Your task to perform on an android device: Go to network settings Image 0: 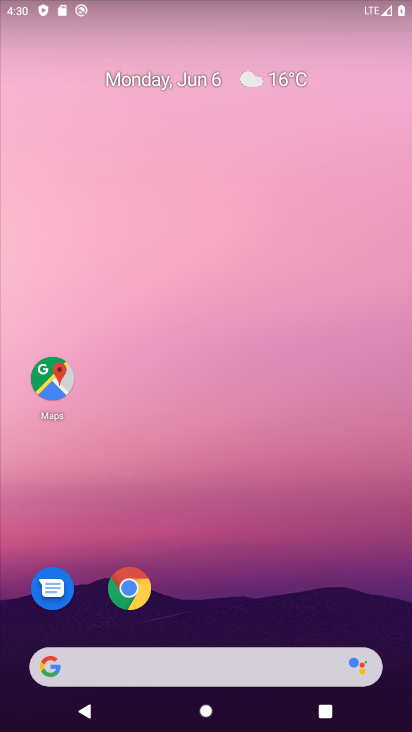
Step 0: click (248, 53)
Your task to perform on an android device: Go to network settings Image 1: 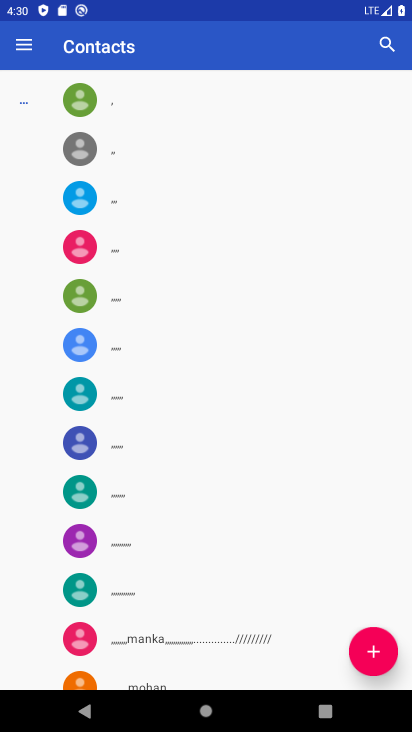
Step 1: press back button
Your task to perform on an android device: Go to network settings Image 2: 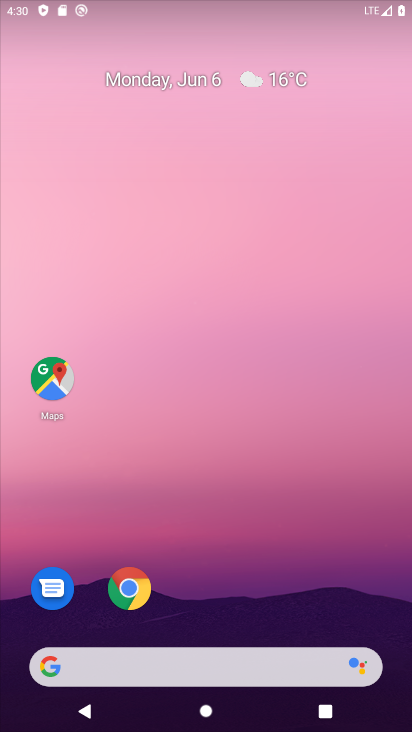
Step 2: drag from (280, 717) to (139, 83)
Your task to perform on an android device: Go to network settings Image 3: 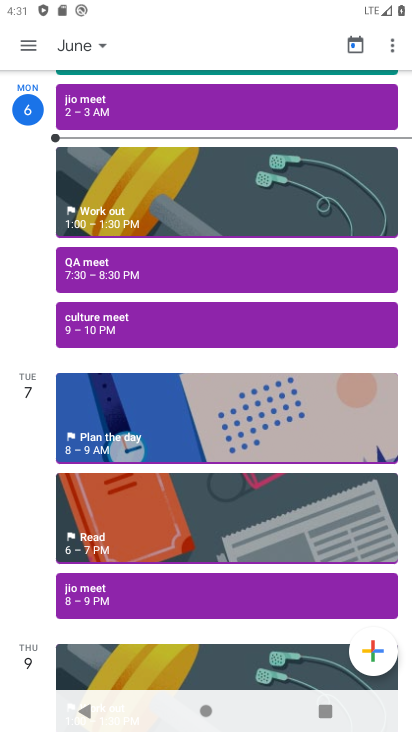
Step 3: press home button
Your task to perform on an android device: Go to network settings Image 4: 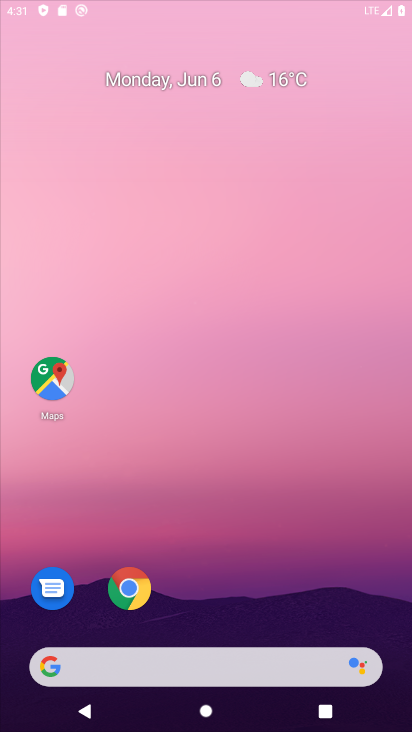
Step 4: press back button
Your task to perform on an android device: Go to network settings Image 5: 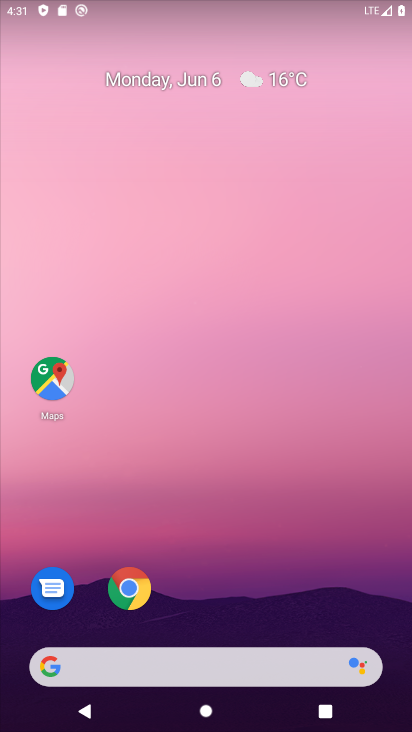
Step 5: drag from (261, 703) to (64, 9)
Your task to perform on an android device: Go to network settings Image 6: 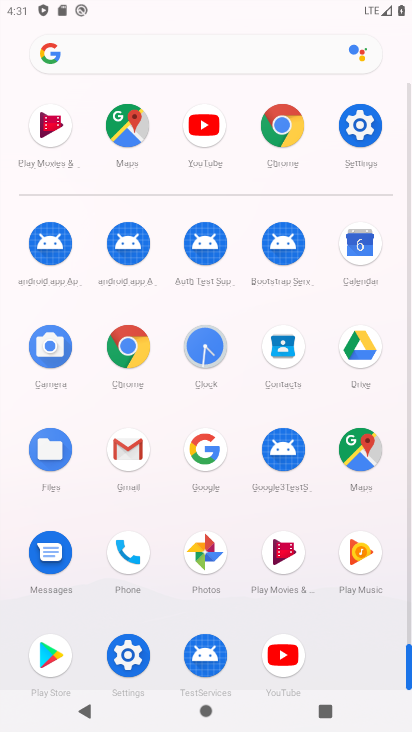
Step 6: click (277, 121)
Your task to perform on an android device: Go to network settings Image 7: 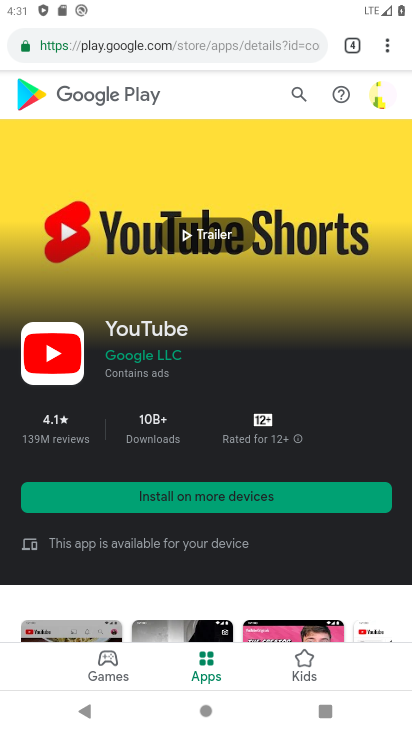
Step 7: press home button
Your task to perform on an android device: Go to network settings Image 8: 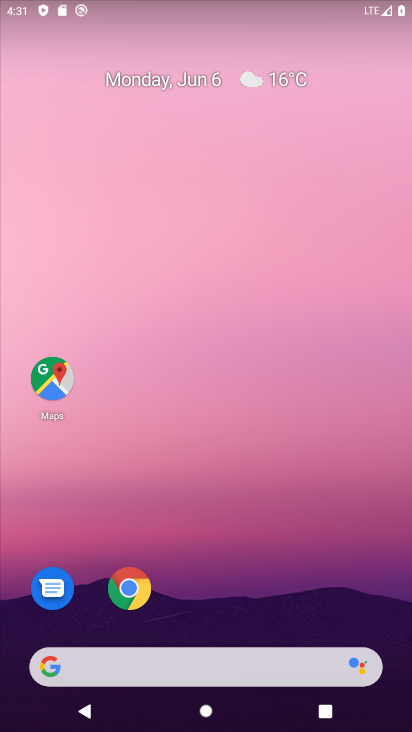
Step 8: drag from (248, 651) to (140, 156)
Your task to perform on an android device: Go to network settings Image 9: 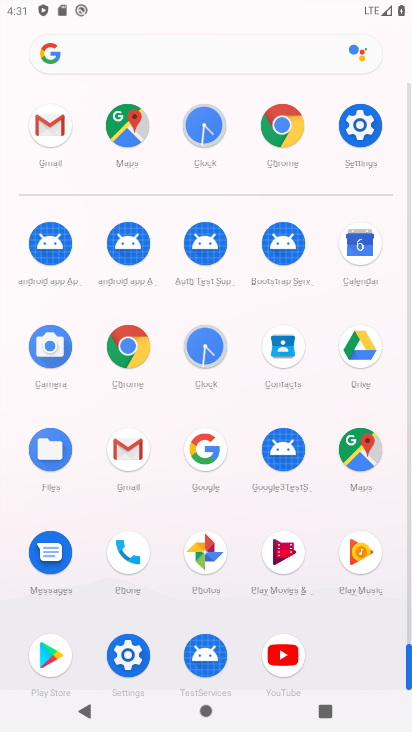
Step 9: click (357, 132)
Your task to perform on an android device: Go to network settings Image 10: 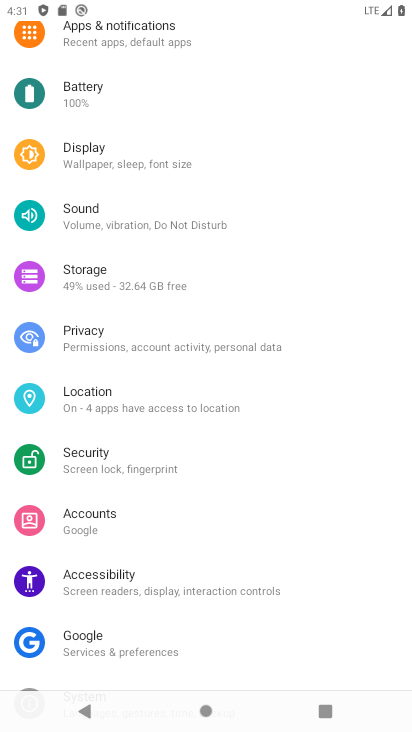
Step 10: drag from (138, 46) to (133, 508)
Your task to perform on an android device: Go to network settings Image 11: 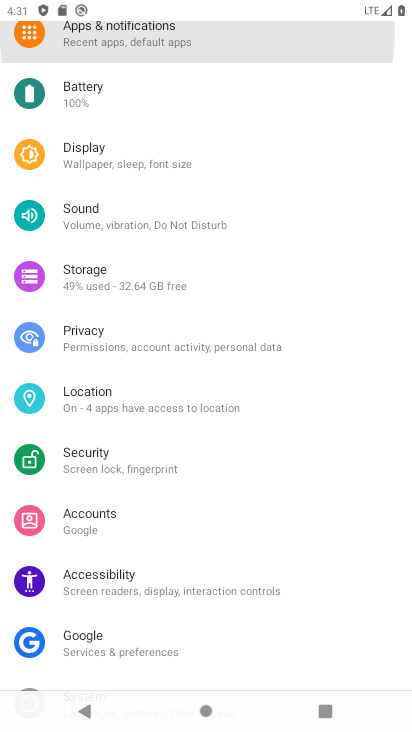
Step 11: drag from (107, 201) to (149, 508)
Your task to perform on an android device: Go to network settings Image 12: 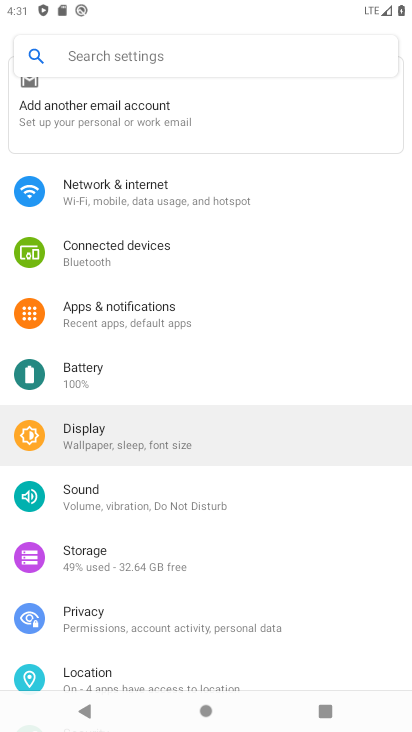
Step 12: drag from (118, 177) to (178, 590)
Your task to perform on an android device: Go to network settings Image 13: 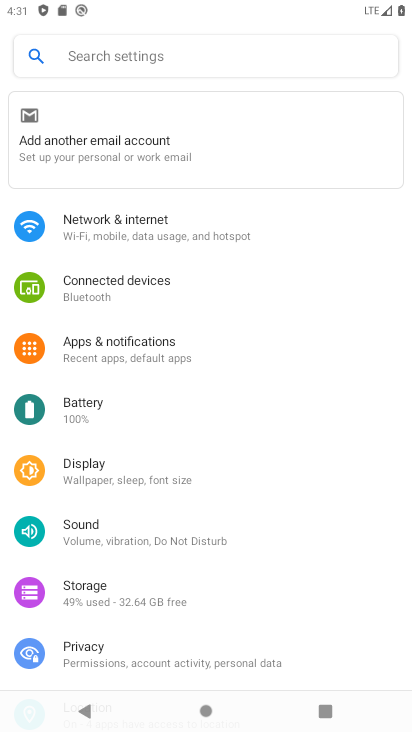
Step 13: drag from (187, 181) to (205, 524)
Your task to perform on an android device: Go to network settings Image 14: 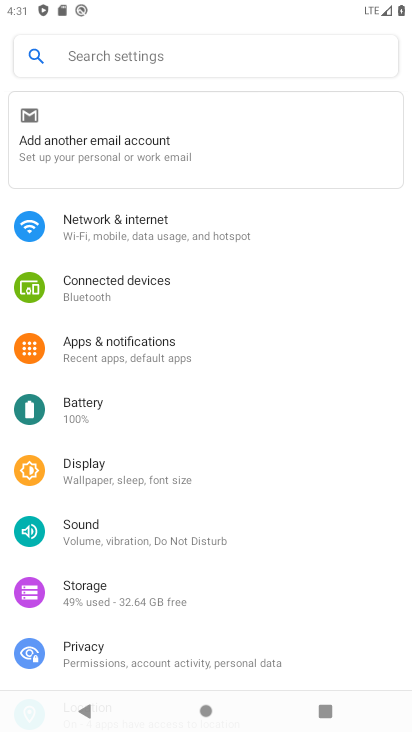
Step 14: click (142, 226)
Your task to perform on an android device: Go to network settings Image 15: 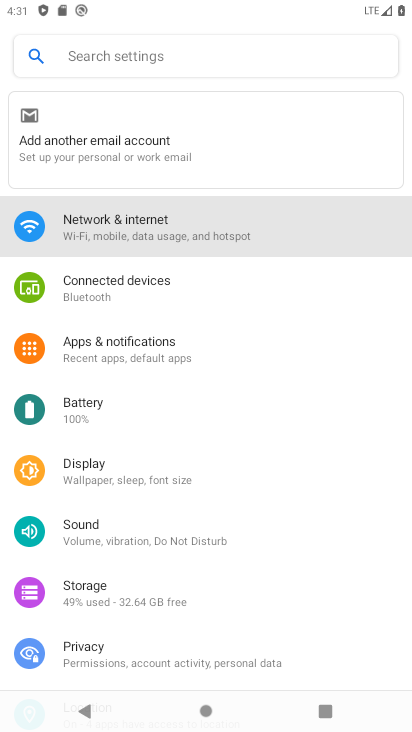
Step 15: click (142, 226)
Your task to perform on an android device: Go to network settings Image 16: 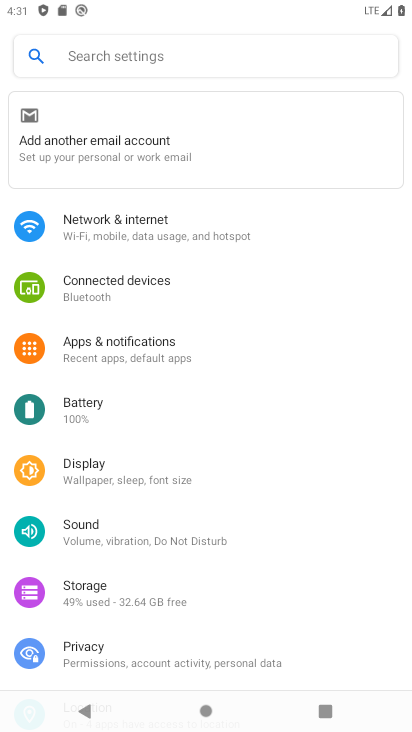
Step 16: click (142, 226)
Your task to perform on an android device: Go to network settings Image 17: 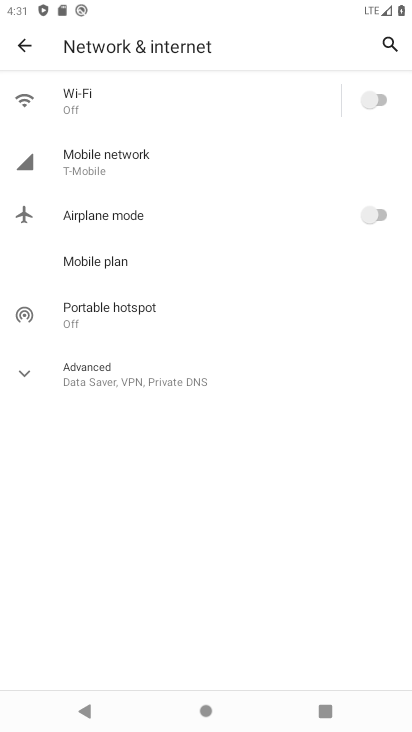
Step 17: click (82, 160)
Your task to perform on an android device: Go to network settings Image 18: 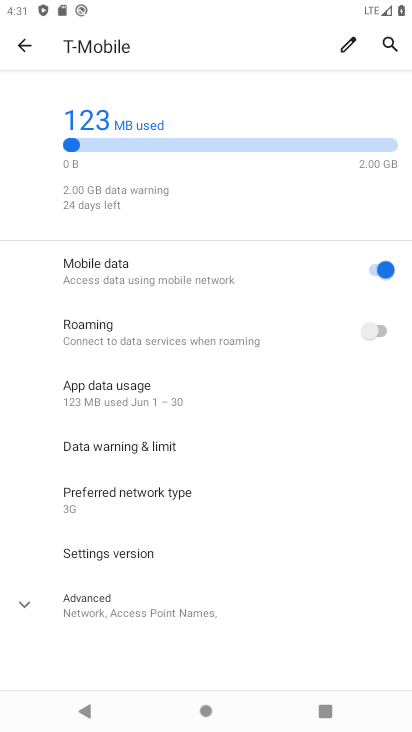
Step 18: task complete